Your task to perform on an android device: add a contact Image 0: 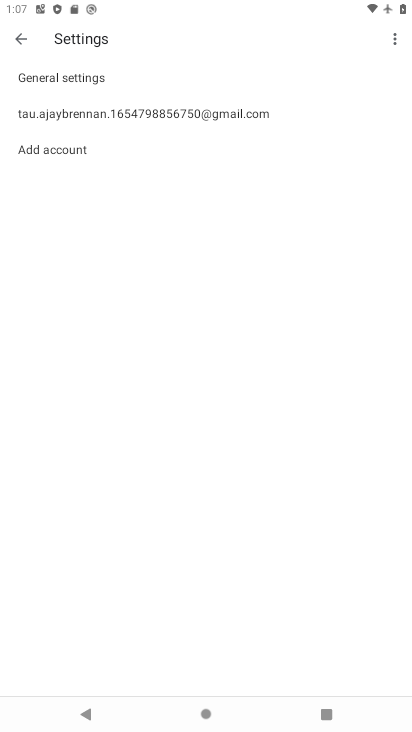
Step 0: press home button
Your task to perform on an android device: add a contact Image 1: 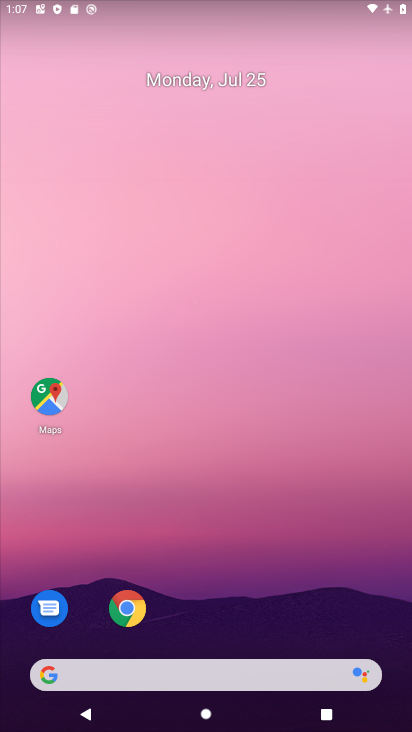
Step 1: drag from (198, 655) to (206, 0)
Your task to perform on an android device: add a contact Image 2: 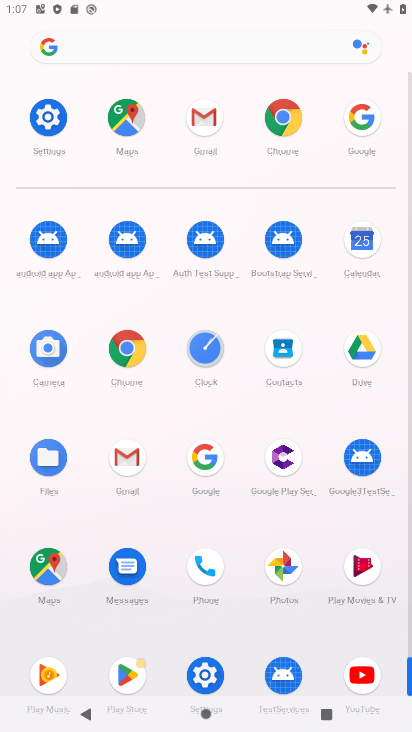
Step 2: click (291, 367)
Your task to perform on an android device: add a contact Image 3: 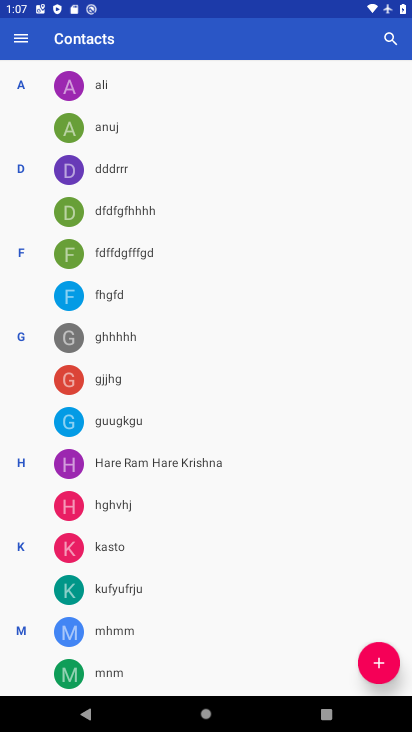
Step 3: click (373, 664)
Your task to perform on an android device: add a contact Image 4: 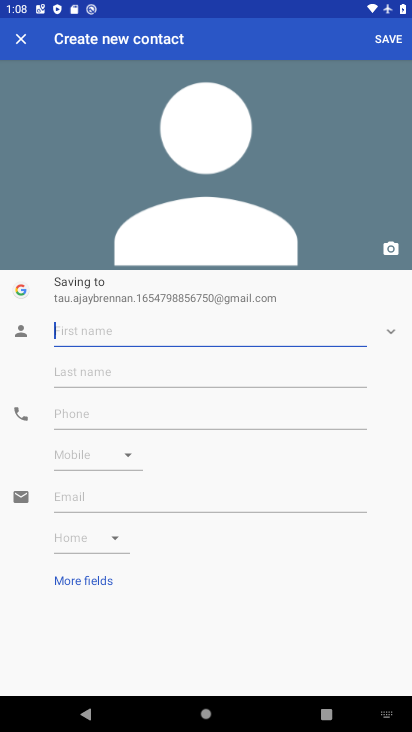
Step 4: type "ythrgtgyhuj"
Your task to perform on an android device: add a contact Image 5: 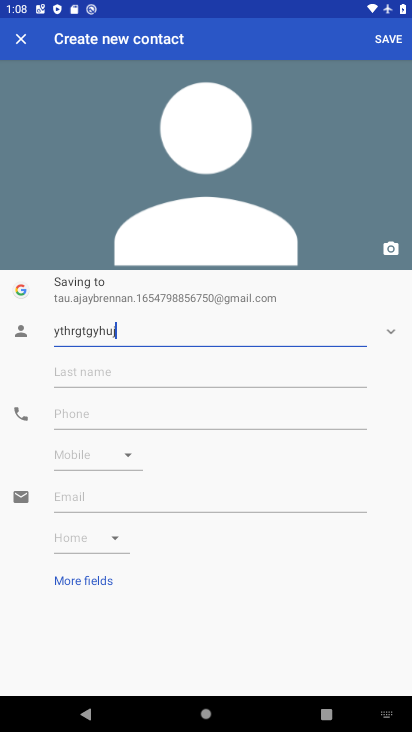
Step 5: click (108, 411)
Your task to perform on an android device: add a contact Image 6: 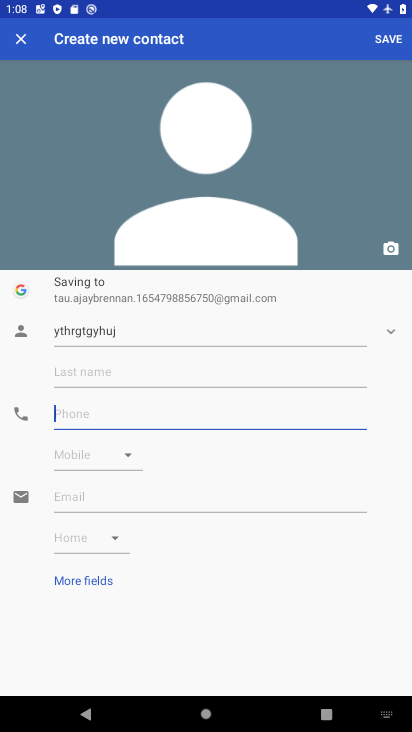
Step 6: type "87656"
Your task to perform on an android device: add a contact Image 7: 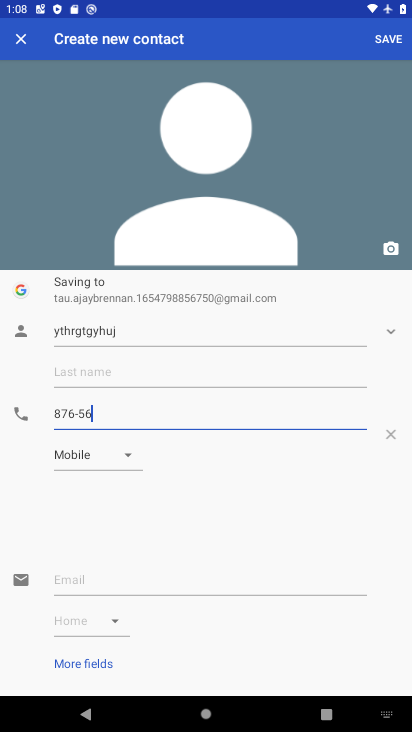
Step 7: type ""
Your task to perform on an android device: add a contact Image 8: 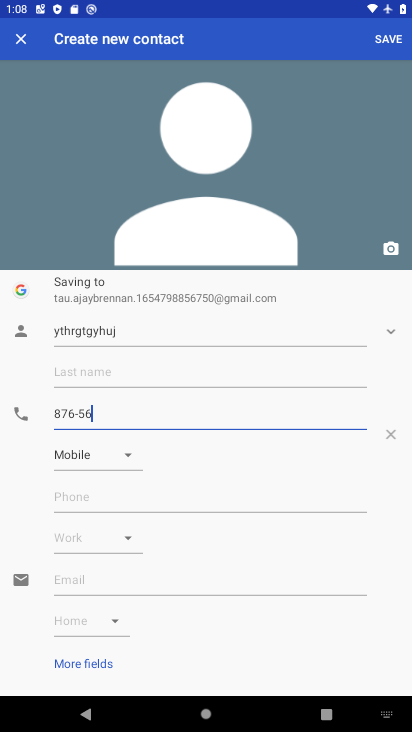
Step 8: click (386, 38)
Your task to perform on an android device: add a contact Image 9: 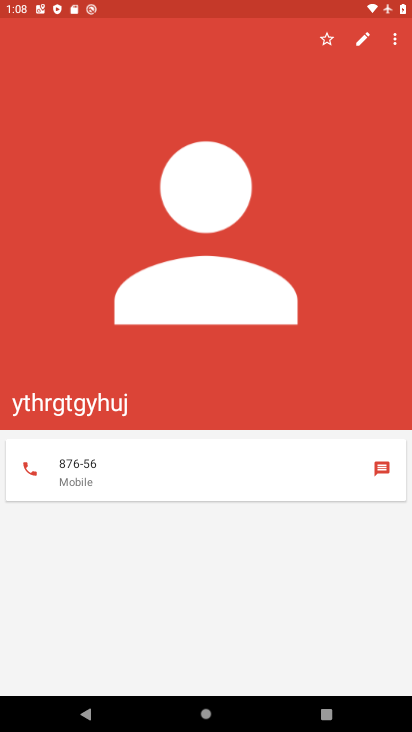
Step 9: task complete